Your task to perform on an android device: Open accessibility settings Image 0: 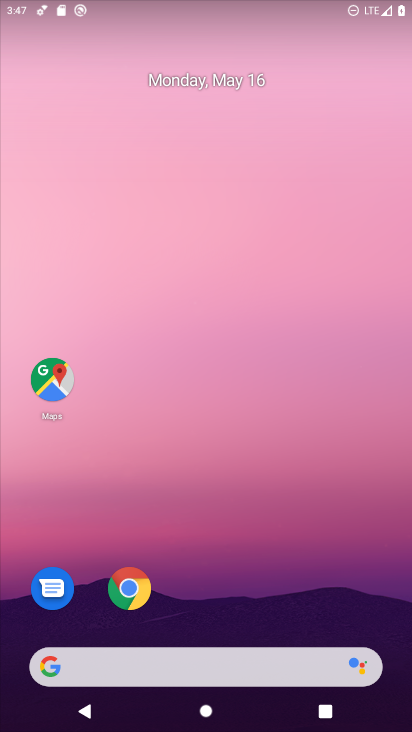
Step 0: drag from (288, 629) to (290, 21)
Your task to perform on an android device: Open accessibility settings Image 1: 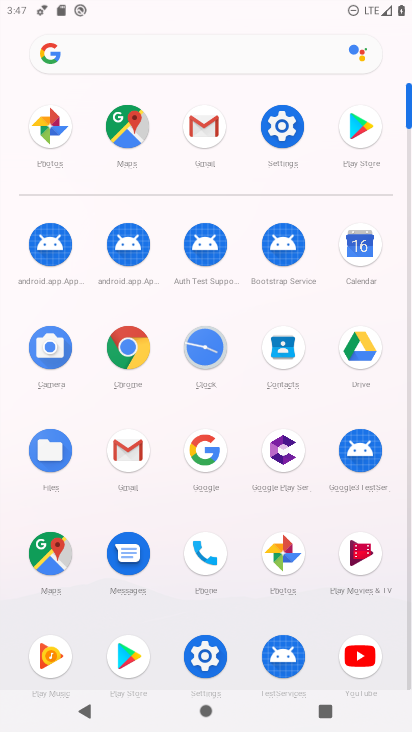
Step 1: click (286, 134)
Your task to perform on an android device: Open accessibility settings Image 2: 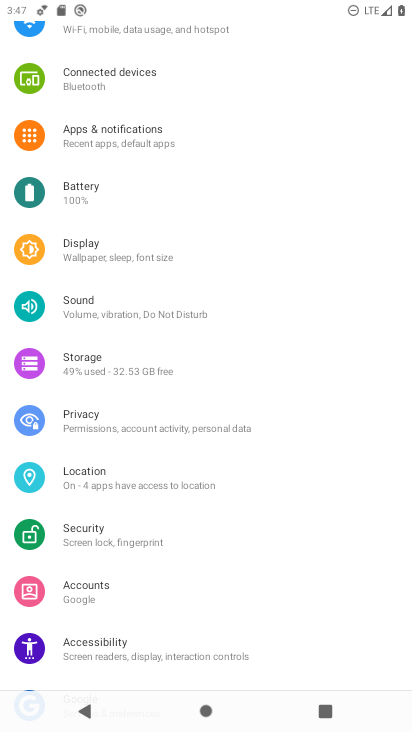
Step 2: click (82, 645)
Your task to perform on an android device: Open accessibility settings Image 3: 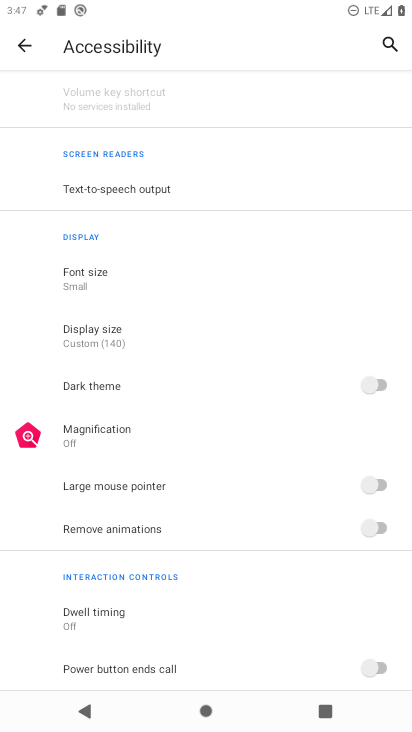
Step 3: task complete